Your task to perform on an android device: search for starred emails in the gmail app Image 0: 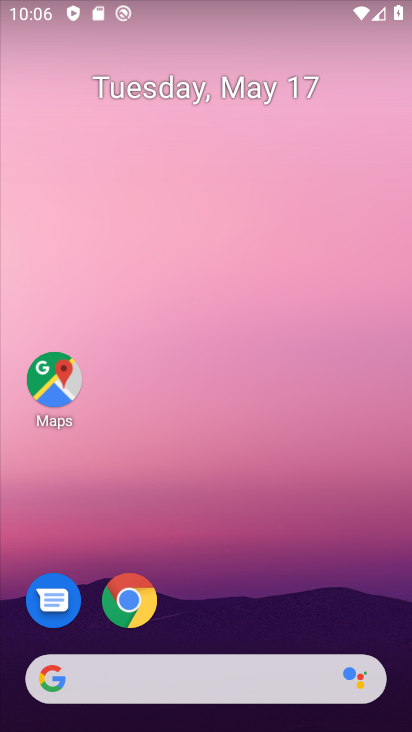
Step 0: drag from (375, 622) to (342, 251)
Your task to perform on an android device: search for starred emails in the gmail app Image 1: 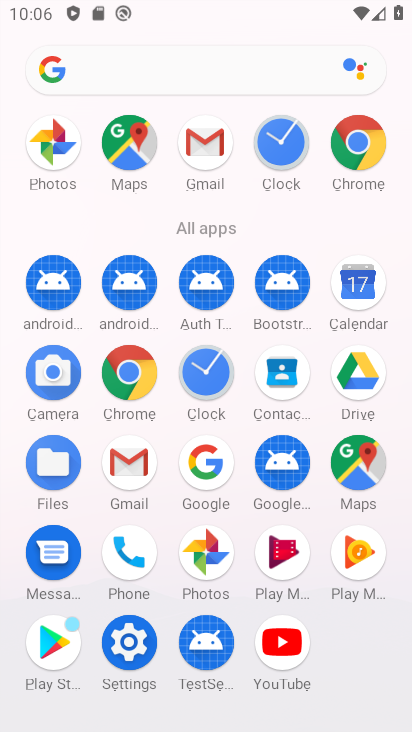
Step 1: click (134, 470)
Your task to perform on an android device: search for starred emails in the gmail app Image 2: 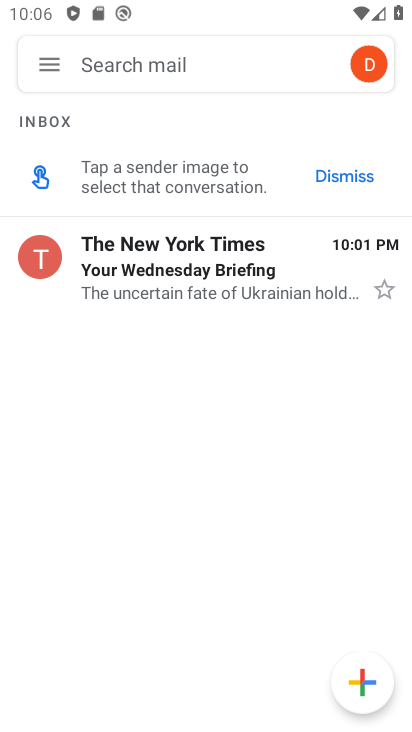
Step 2: click (44, 72)
Your task to perform on an android device: search for starred emails in the gmail app Image 3: 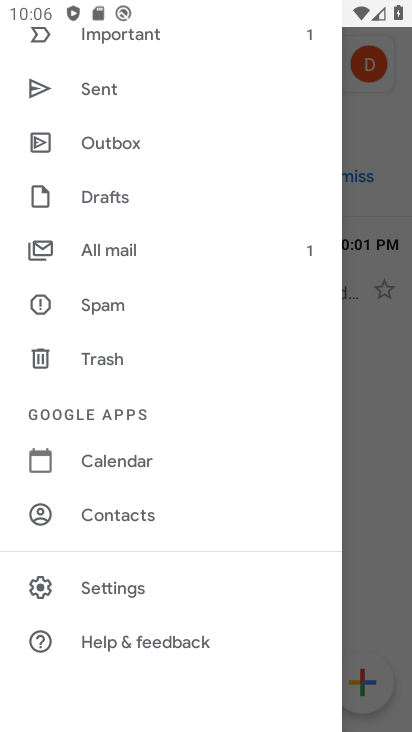
Step 3: drag from (258, 472) to (258, 522)
Your task to perform on an android device: search for starred emails in the gmail app Image 4: 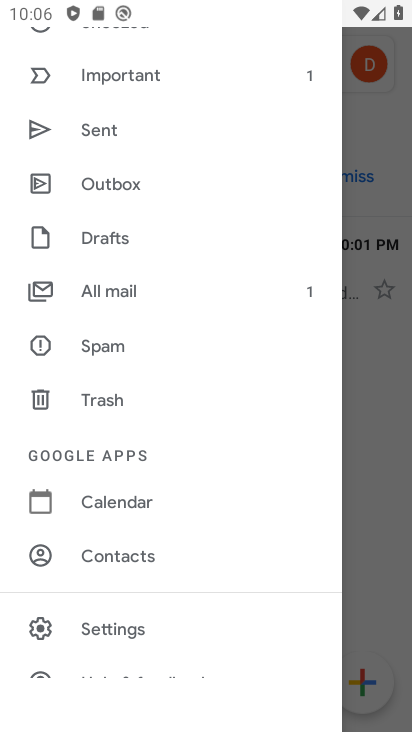
Step 4: drag from (255, 412) to (249, 477)
Your task to perform on an android device: search for starred emails in the gmail app Image 5: 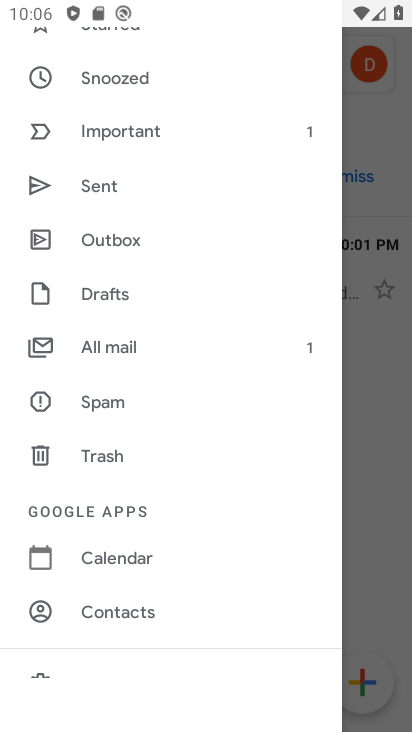
Step 5: drag from (248, 332) to (250, 421)
Your task to perform on an android device: search for starred emails in the gmail app Image 6: 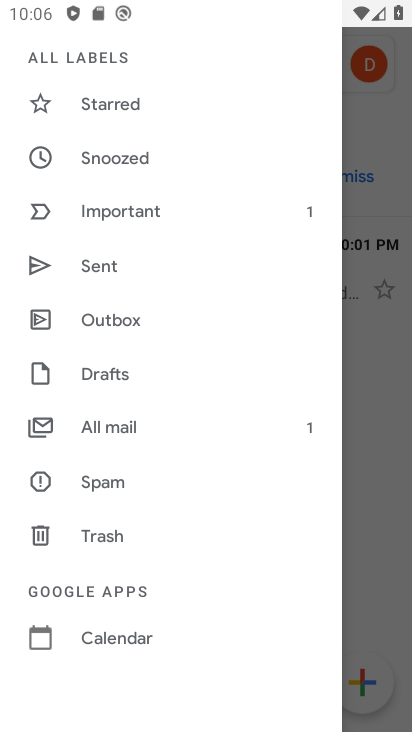
Step 6: drag from (258, 303) to (251, 394)
Your task to perform on an android device: search for starred emails in the gmail app Image 7: 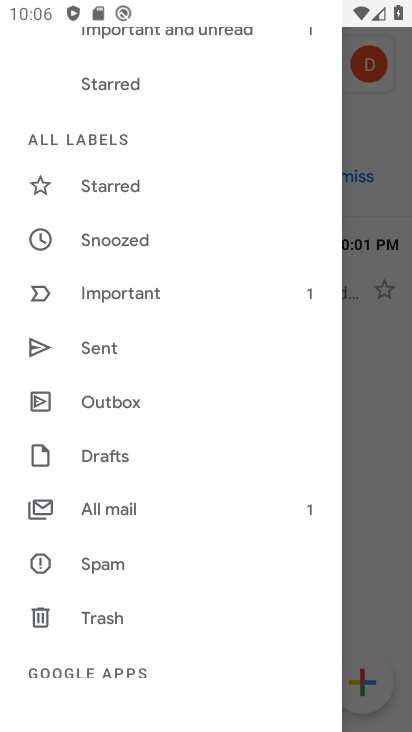
Step 7: drag from (254, 298) to (237, 397)
Your task to perform on an android device: search for starred emails in the gmail app Image 8: 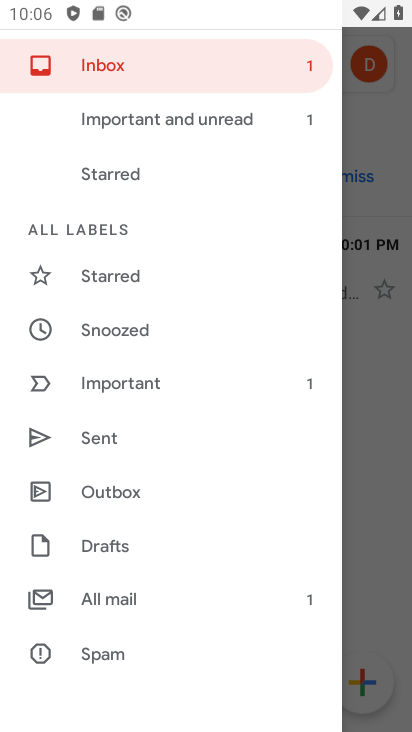
Step 8: click (158, 268)
Your task to perform on an android device: search for starred emails in the gmail app Image 9: 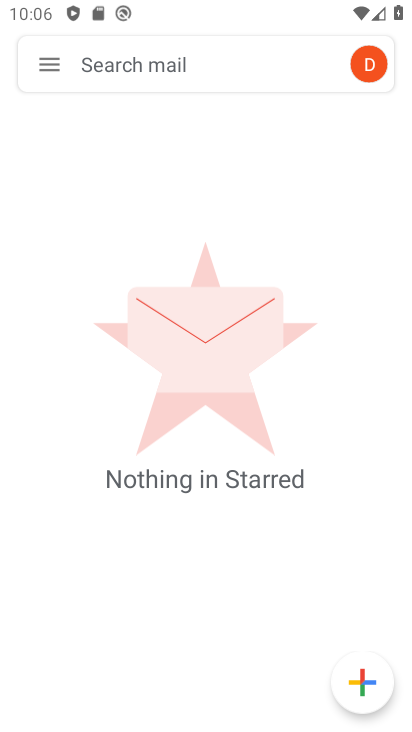
Step 9: task complete